Your task to perform on an android device: turn smart compose on in the gmail app Image 0: 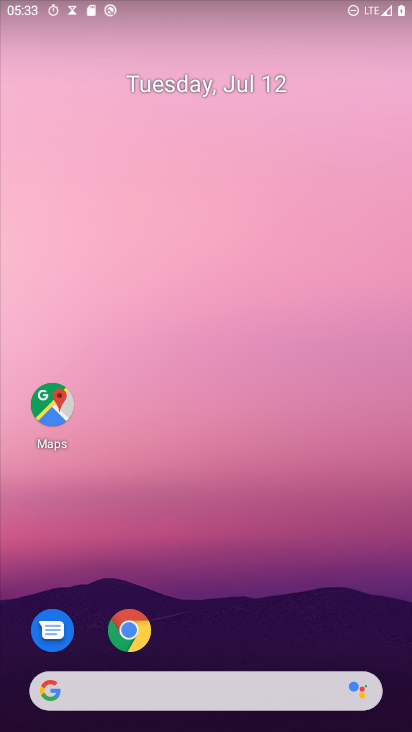
Step 0: drag from (271, 698) to (315, 70)
Your task to perform on an android device: turn smart compose on in the gmail app Image 1: 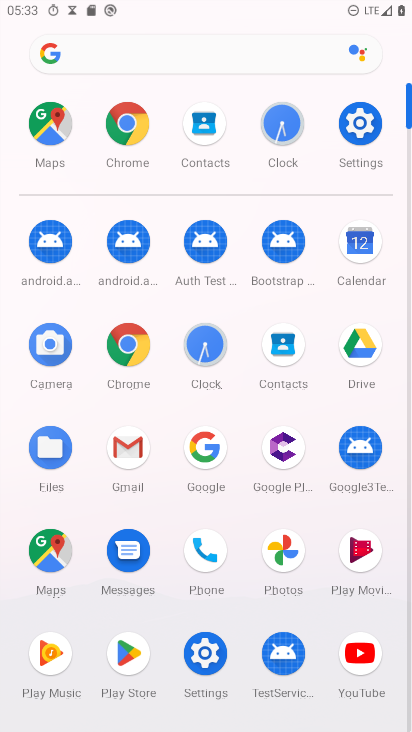
Step 1: click (118, 463)
Your task to perform on an android device: turn smart compose on in the gmail app Image 2: 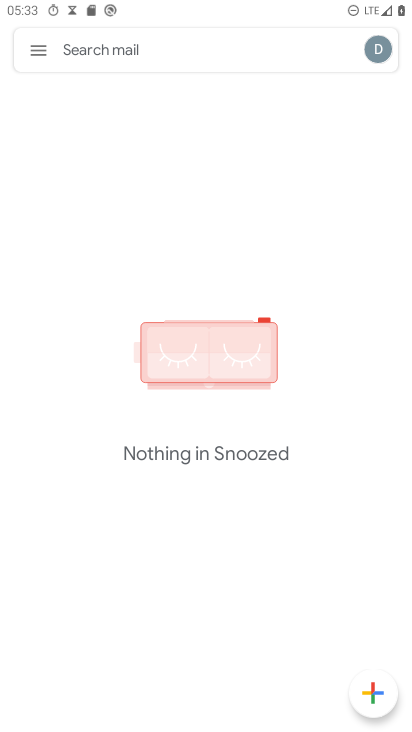
Step 2: click (35, 52)
Your task to perform on an android device: turn smart compose on in the gmail app Image 3: 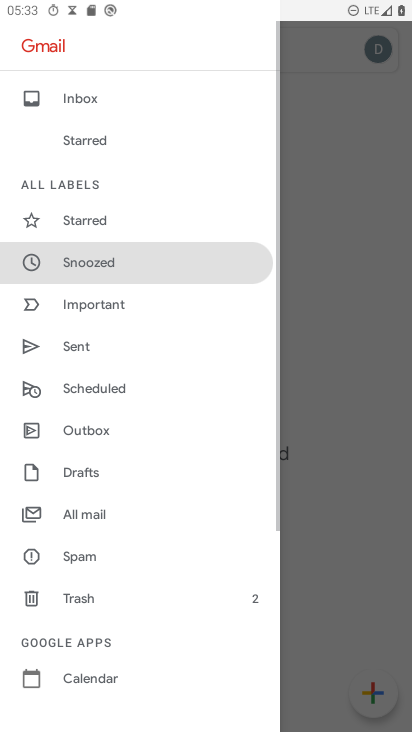
Step 3: drag from (103, 677) to (142, 168)
Your task to perform on an android device: turn smart compose on in the gmail app Image 4: 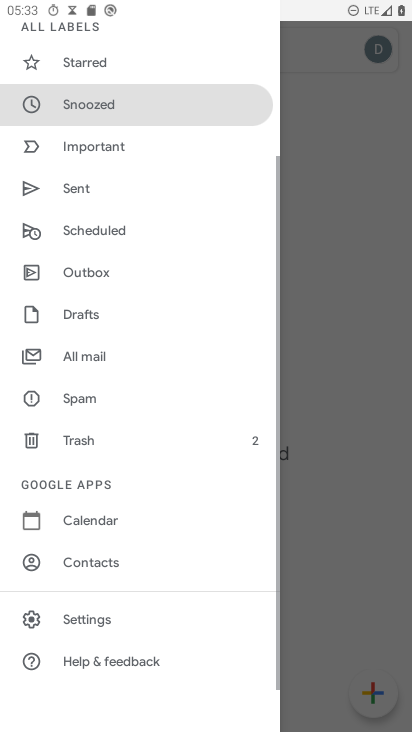
Step 4: click (90, 630)
Your task to perform on an android device: turn smart compose on in the gmail app Image 5: 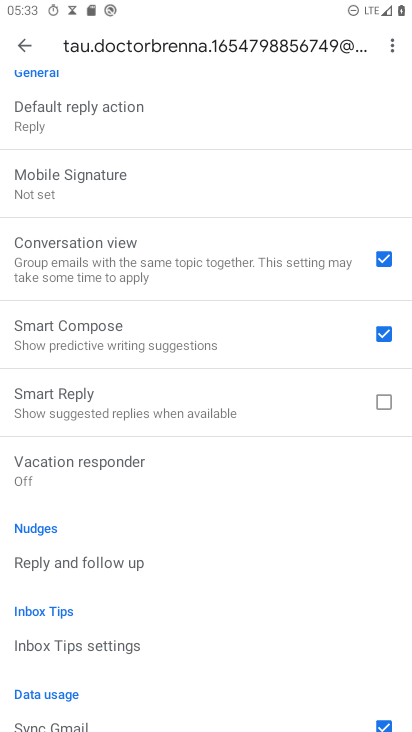
Step 5: task complete